Your task to perform on an android device: turn off notifications settings in the gmail app Image 0: 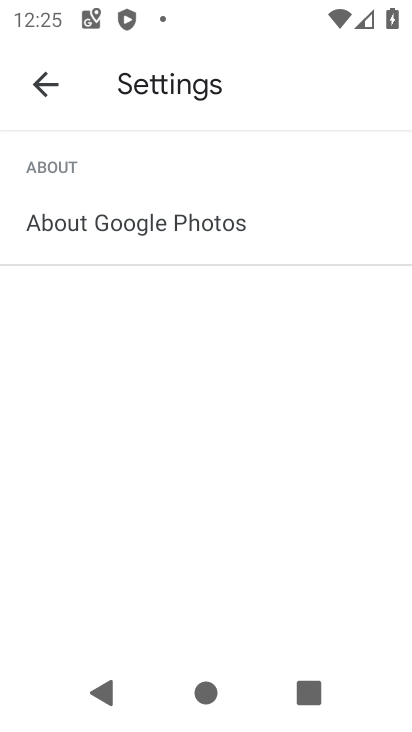
Step 0: press home button
Your task to perform on an android device: turn off notifications settings in the gmail app Image 1: 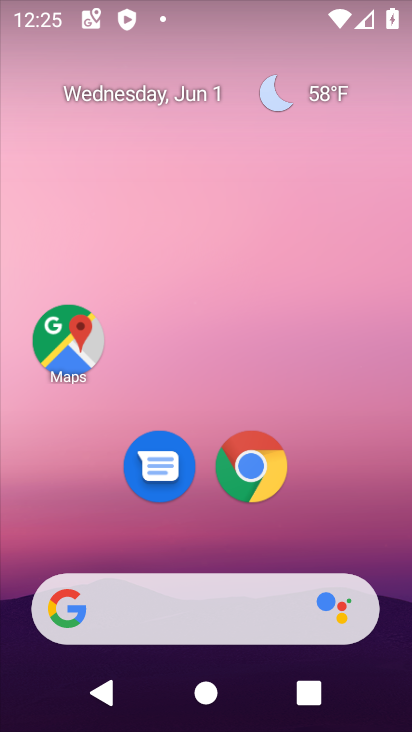
Step 1: drag from (359, 538) to (281, 59)
Your task to perform on an android device: turn off notifications settings in the gmail app Image 2: 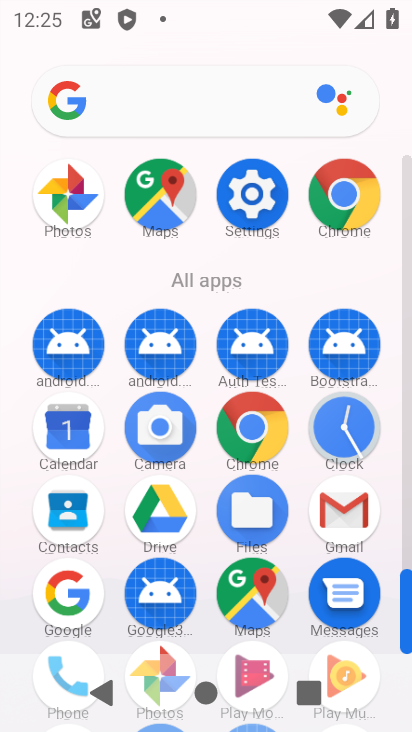
Step 2: click (352, 523)
Your task to perform on an android device: turn off notifications settings in the gmail app Image 3: 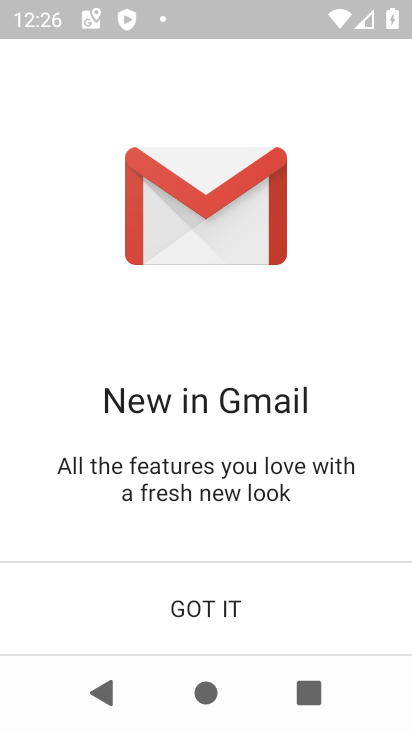
Step 3: click (248, 619)
Your task to perform on an android device: turn off notifications settings in the gmail app Image 4: 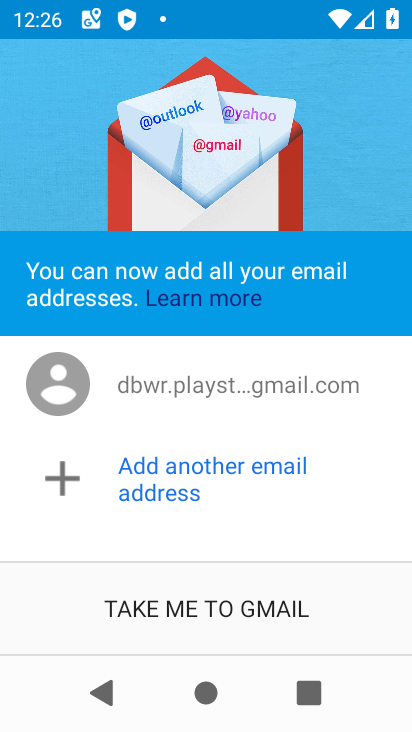
Step 4: click (248, 619)
Your task to perform on an android device: turn off notifications settings in the gmail app Image 5: 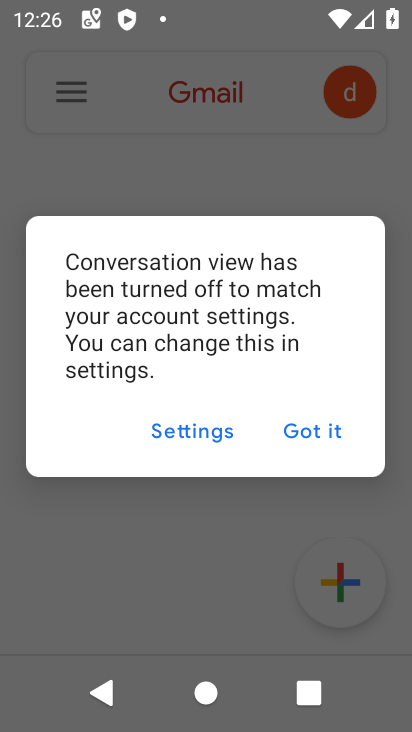
Step 5: click (327, 423)
Your task to perform on an android device: turn off notifications settings in the gmail app Image 6: 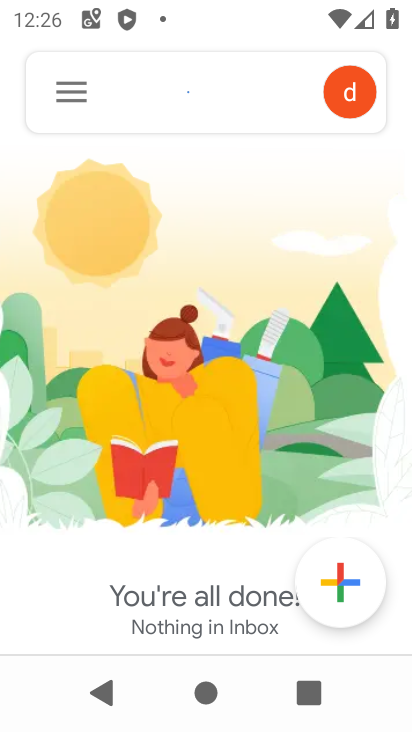
Step 6: click (65, 107)
Your task to perform on an android device: turn off notifications settings in the gmail app Image 7: 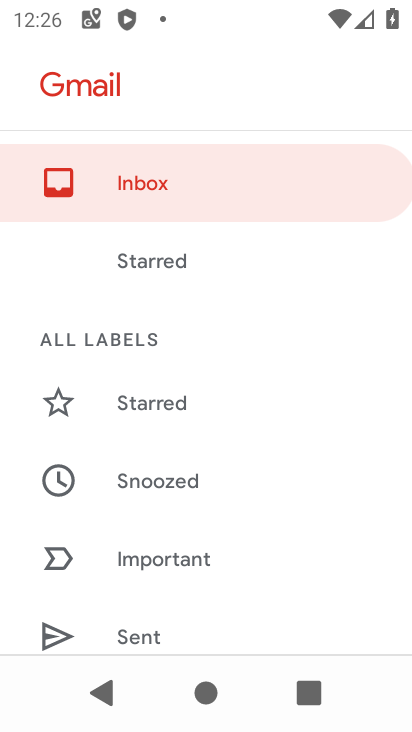
Step 7: drag from (214, 641) to (162, 130)
Your task to perform on an android device: turn off notifications settings in the gmail app Image 8: 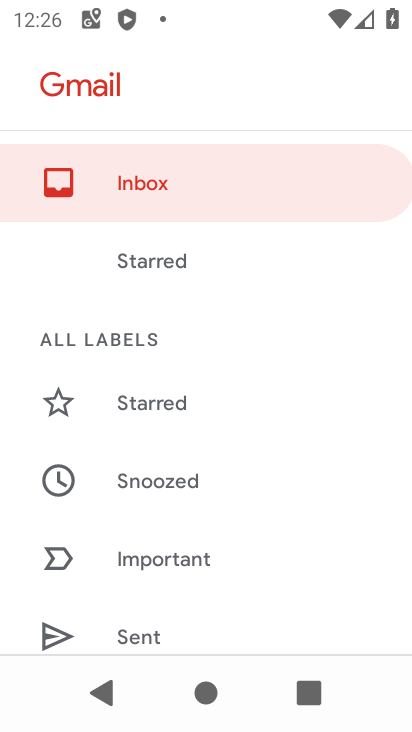
Step 8: drag from (138, 580) to (146, 203)
Your task to perform on an android device: turn off notifications settings in the gmail app Image 9: 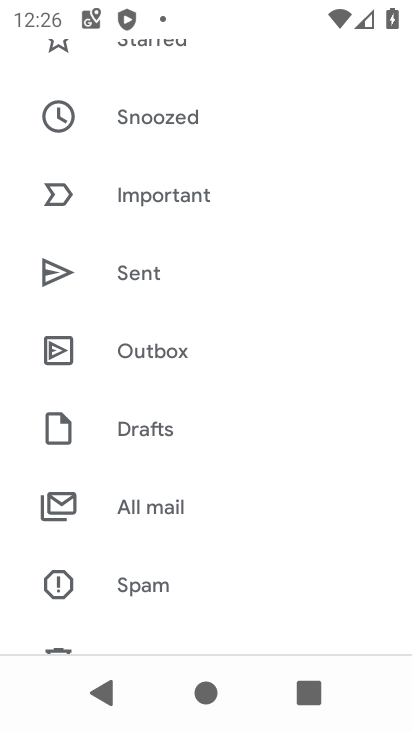
Step 9: drag from (160, 606) to (146, 322)
Your task to perform on an android device: turn off notifications settings in the gmail app Image 10: 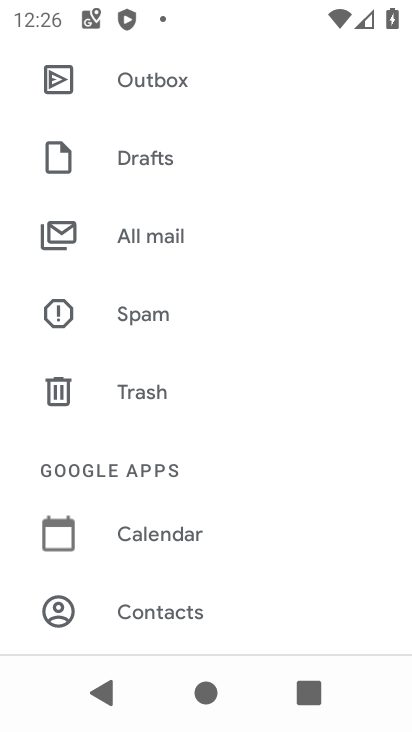
Step 10: drag from (142, 641) to (143, 309)
Your task to perform on an android device: turn off notifications settings in the gmail app Image 11: 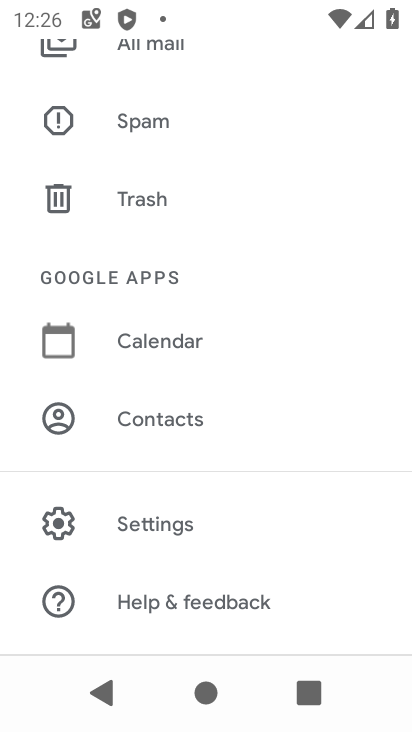
Step 11: click (143, 518)
Your task to perform on an android device: turn off notifications settings in the gmail app Image 12: 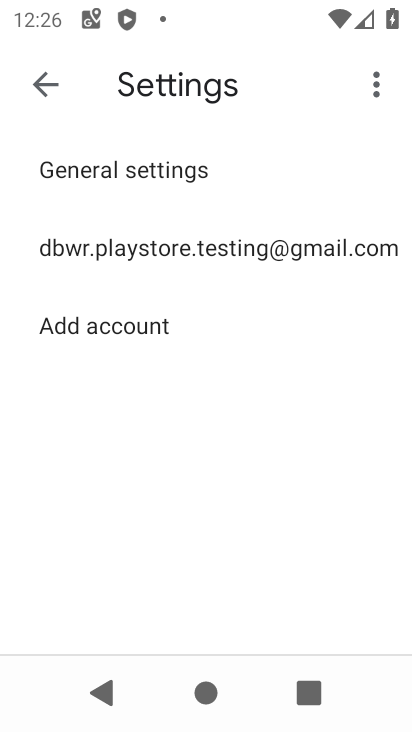
Step 12: click (197, 257)
Your task to perform on an android device: turn off notifications settings in the gmail app Image 13: 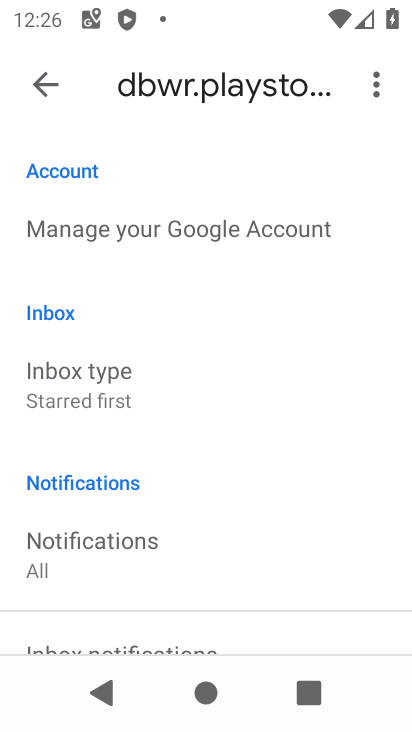
Step 13: drag from (213, 522) to (191, 188)
Your task to perform on an android device: turn off notifications settings in the gmail app Image 14: 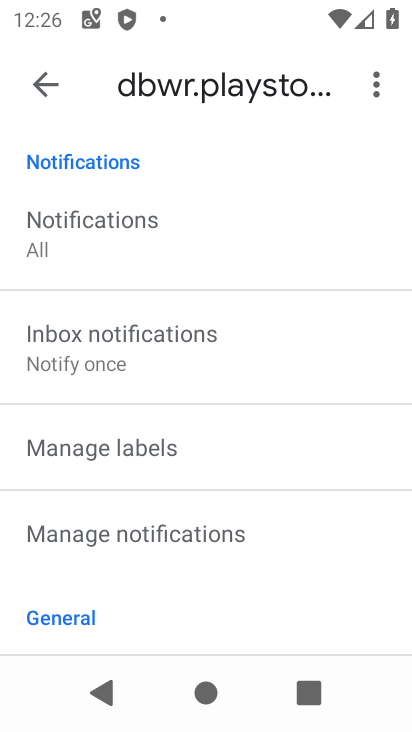
Step 14: click (218, 531)
Your task to perform on an android device: turn off notifications settings in the gmail app Image 15: 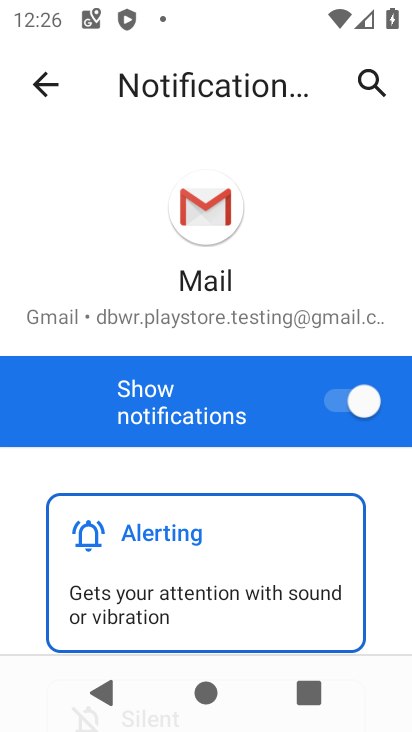
Step 15: task complete